Your task to perform on an android device: Go to Google Image 0: 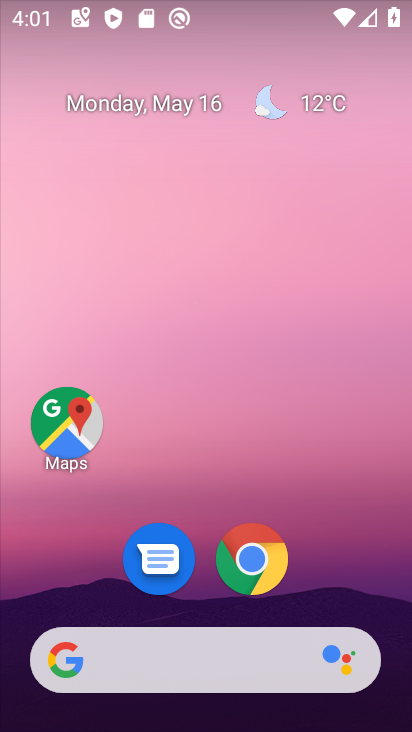
Step 0: click (326, 45)
Your task to perform on an android device: Go to Google Image 1: 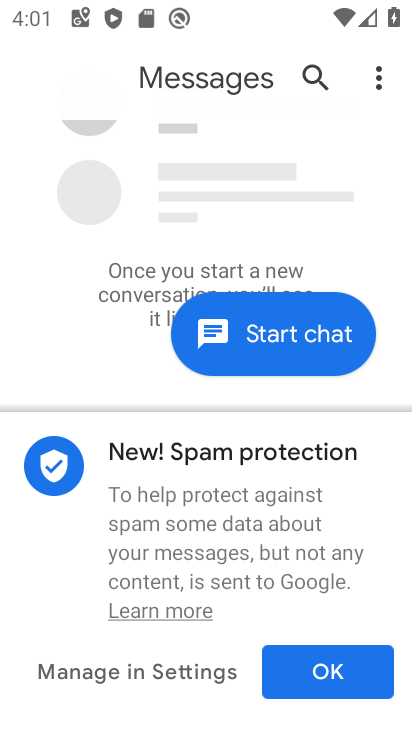
Step 1: press home button
Your task to perform on an android device: Go to Google Image 2: 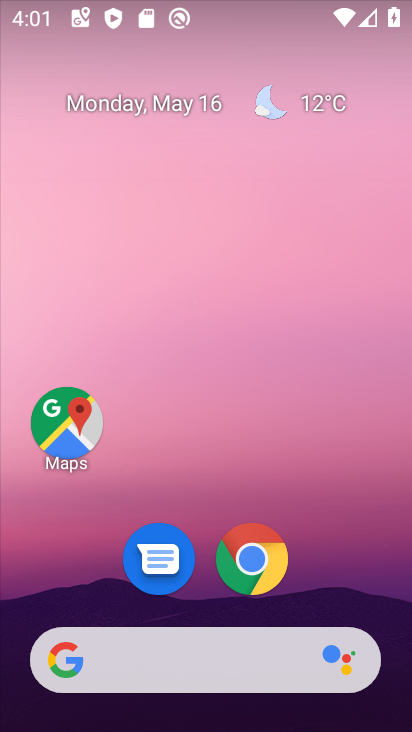
Step 2: drag from (338, 574) to (314, 37)
Your task to perform on an android device: Go to Google Image 3: 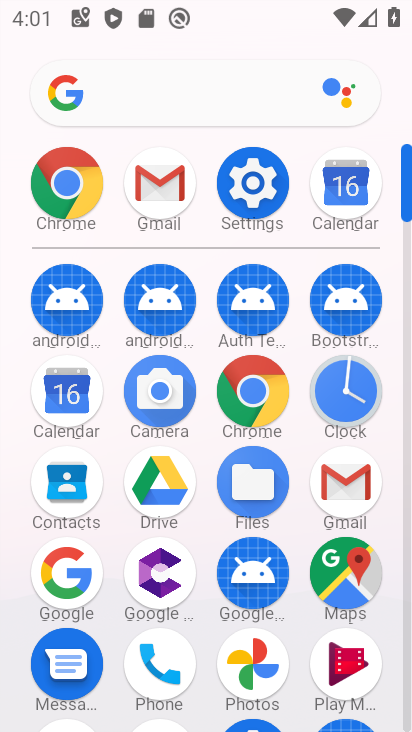
Step 3: click (37, 201)
Your task to perform on an android device: Go to Google Image 4: 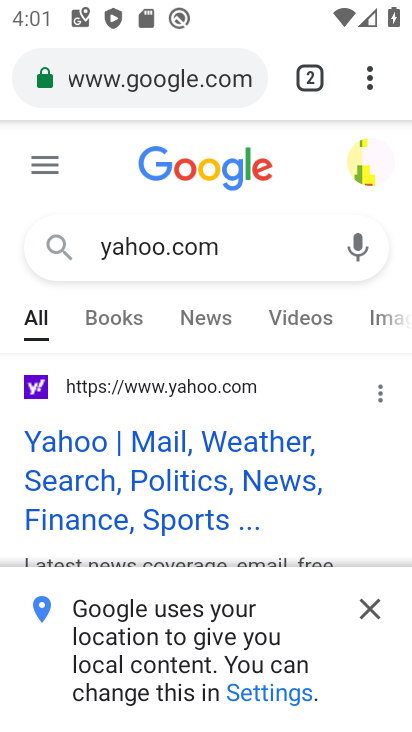
Step 4: click (194, 83)
Your task to perform on an android device: Go to Google Image 5: 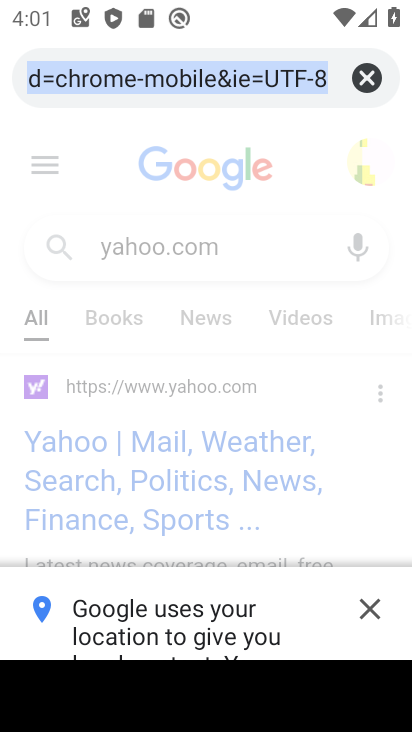
Step 5: type "google.com"
Your task to perform on an android device: Go to Google Image 6: 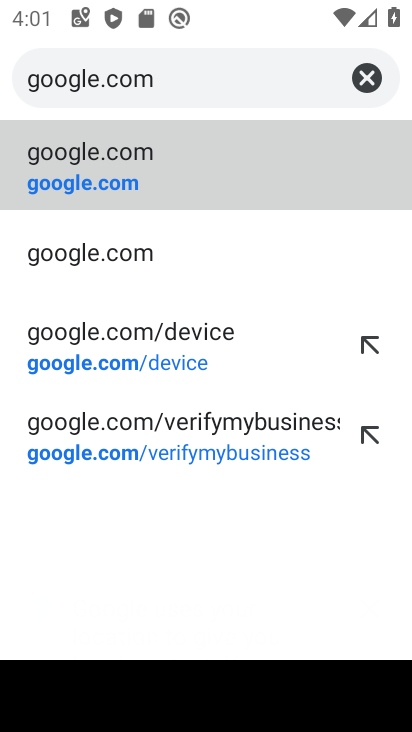
Step 6: click (95, 176)
Your task to perform on an android device: Go to Google Image 7: 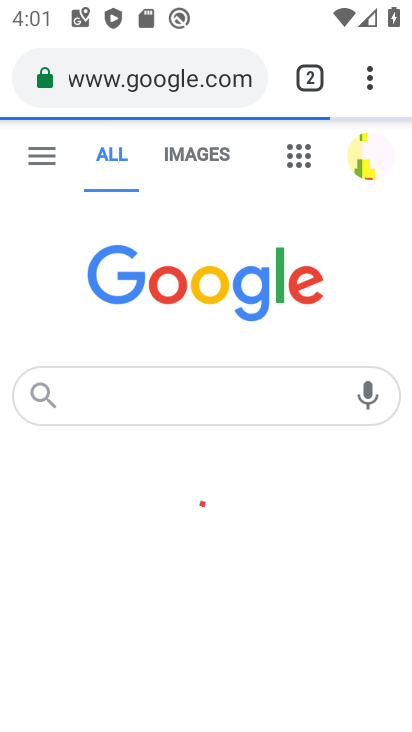
Step 7: task complete